Your task to perform on an android device: Find coffee shops on Maps Image 0: 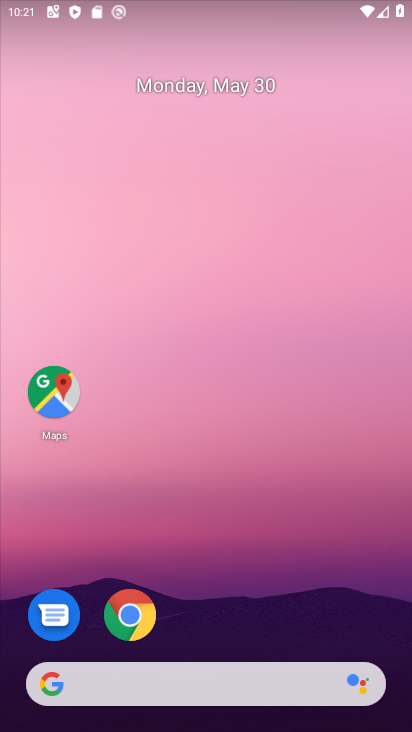
Step 0: drag from (303, 606) to (255, 28)
Your task to perform on an android device: Find coffee shops on Maps Image 1: 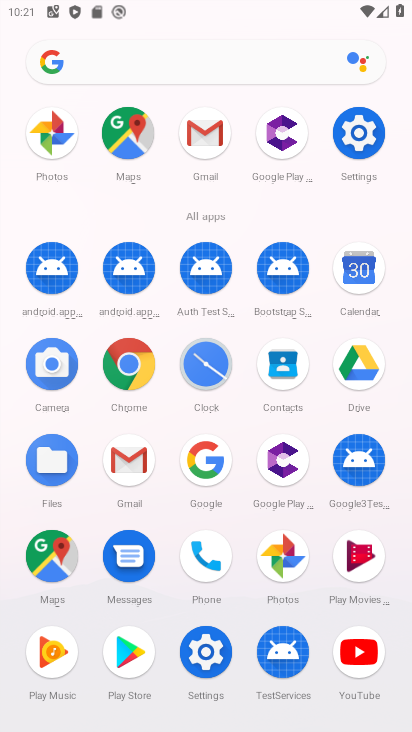
Step 1: click (126, 128)
Your task to perform on an android device: Find coffee shops on Maps Image 2: 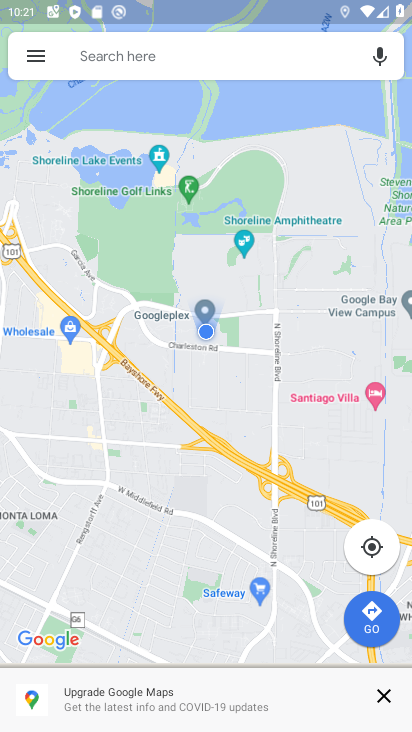
Step 2: click (233, 60)
Your task to perform on an android device: Find coffee shops on Maps Image 3: 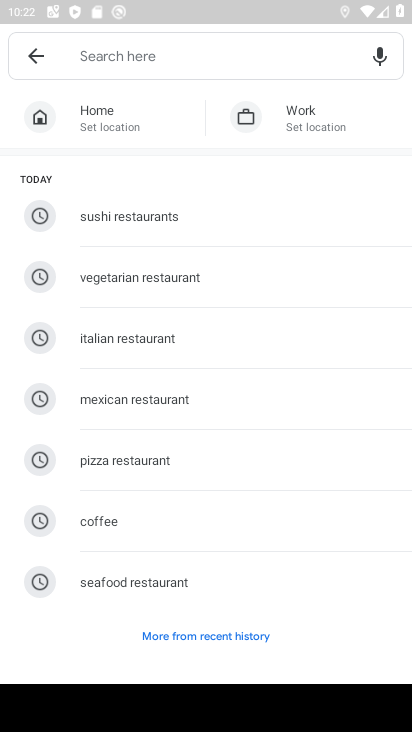
Step 3: click (119, 509)
Your task to perform on an android device: Find coffee shops on Maps Image 4: 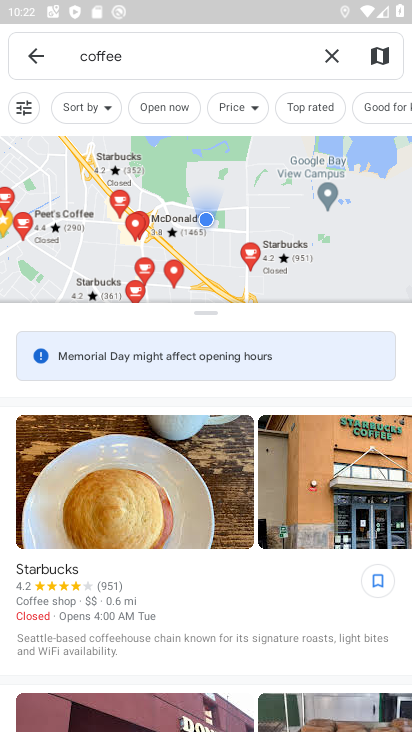
Step 4: task complete